Your task to perform on an android device: Show me popular videos on Youtube Image 0: 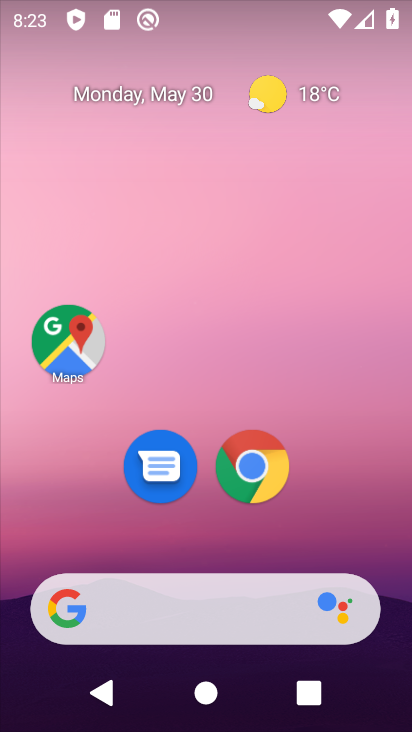
Step 0: drag from (298, 530) to (317, 53)
Your task to perform on an android device: Show me popular videos on Youtube Image 1: 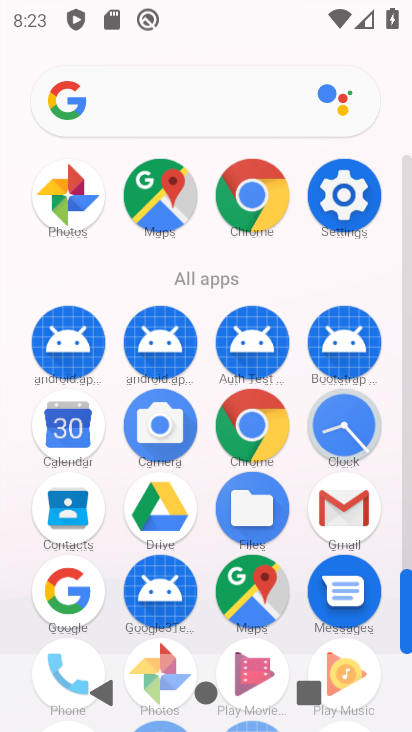
Step 1: drag from (191, 269) to (242, 6)
Your task to perform on an android device: Show me popular videos on Youtube Image 2: 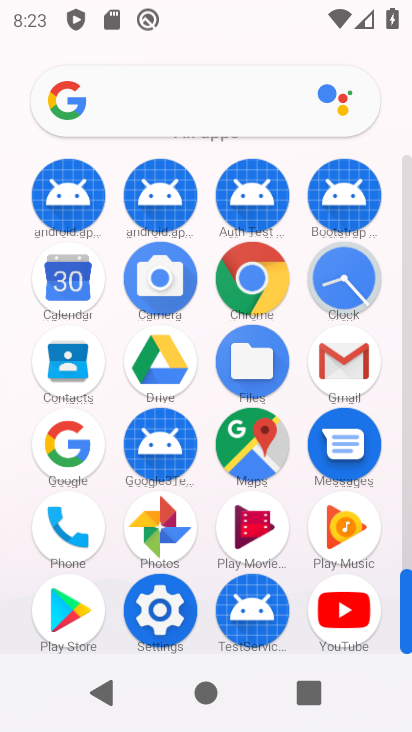
Step 2: click (355, 593)
Your task to perform on an android device: Show me popular videos on Youtube Image 3: 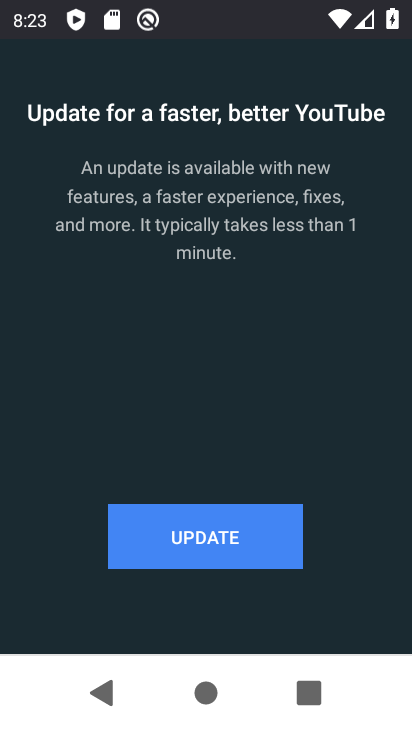
Step 3: click (268, 527)
Your task to perform on an android device: Show me popular videos on Youtube Image 4: 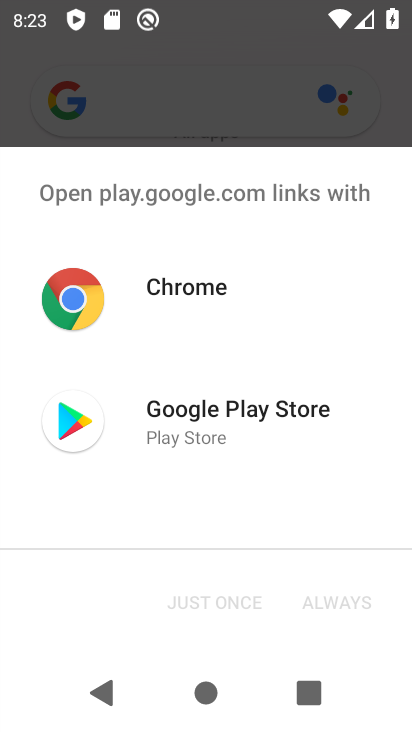
Step 4: click (204, 420)
Your task to perform on an android device: Show me popular videos on Youtube Image 5: 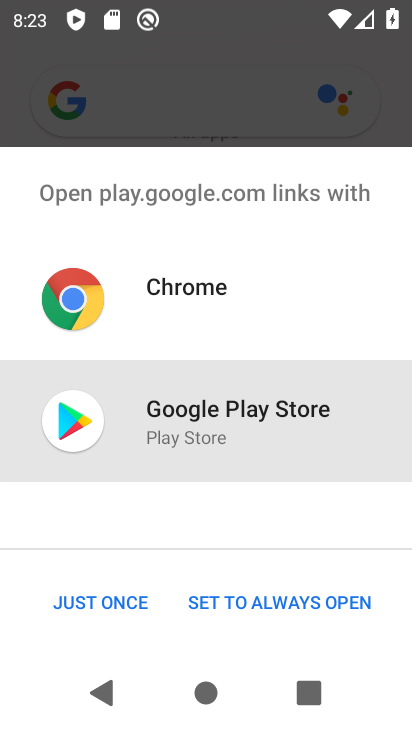
Step 5: click (74, 607)
Your task to perform on an android device: Show me popular videos on Youtube Image 6: 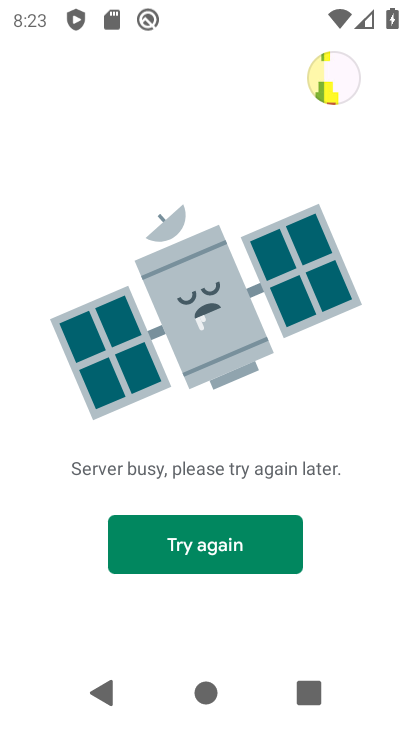
Step 6: click (207, 553)
Your task to perform on an android device: Show me popular videos on Youtube Image 7: 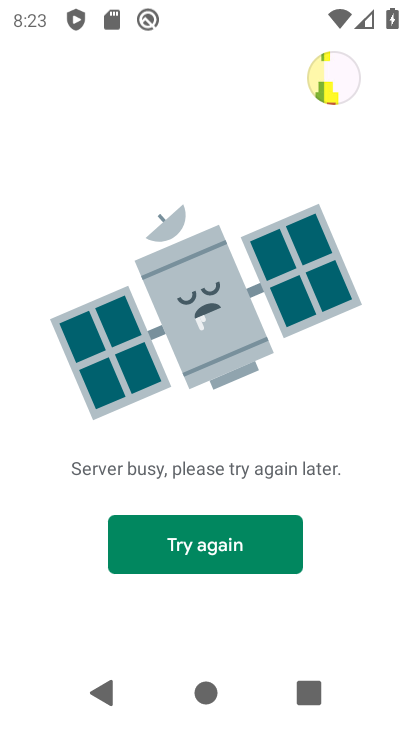
Step 7: press back button
Your task to perform on an android device: Show me popular videos on Youtube Image 8: 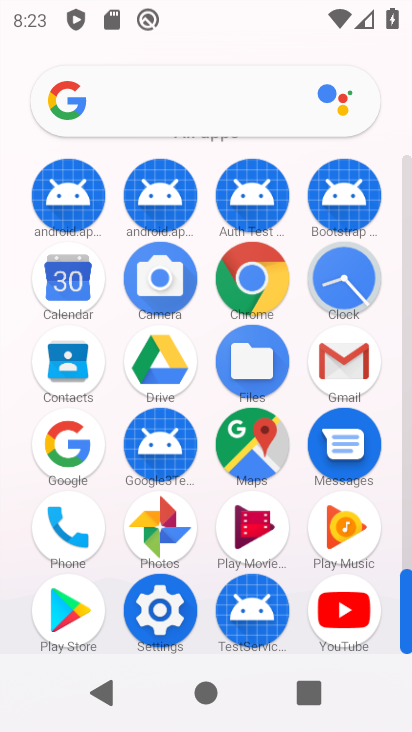
Step 8: click (351, 607)
Your task to perform on an android device: Show me popular videos on Youtube Image 9: 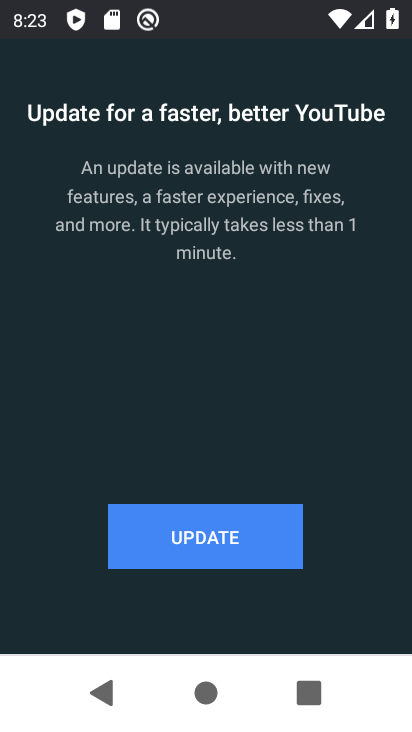
Step 9: task complete